Your task to perform on an android device: Open the contacts Image 0: 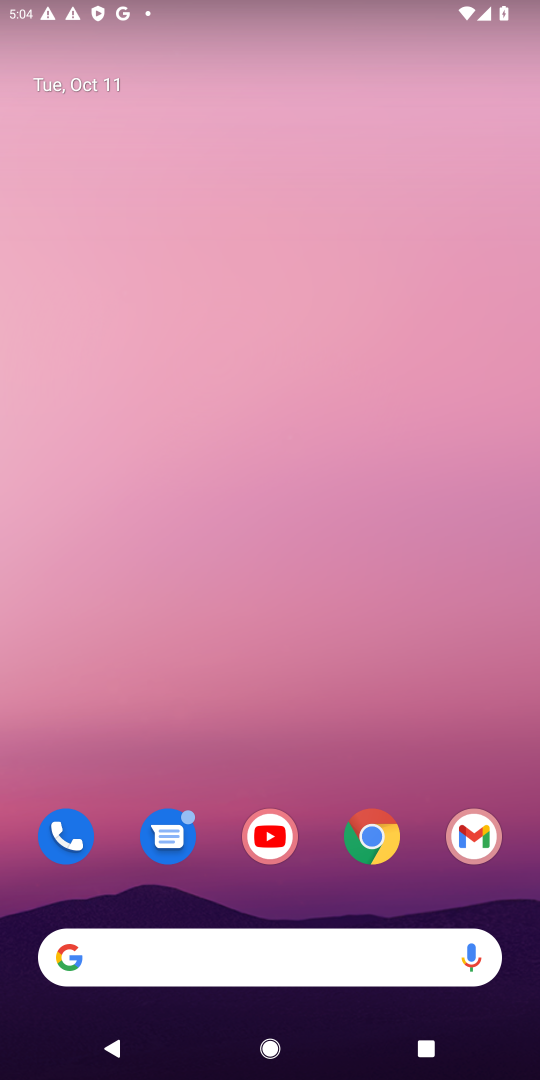
Step 0: drag from (243, 956) to (463, 295)
Your task to perform on an android device: Open the contacts Image 1: 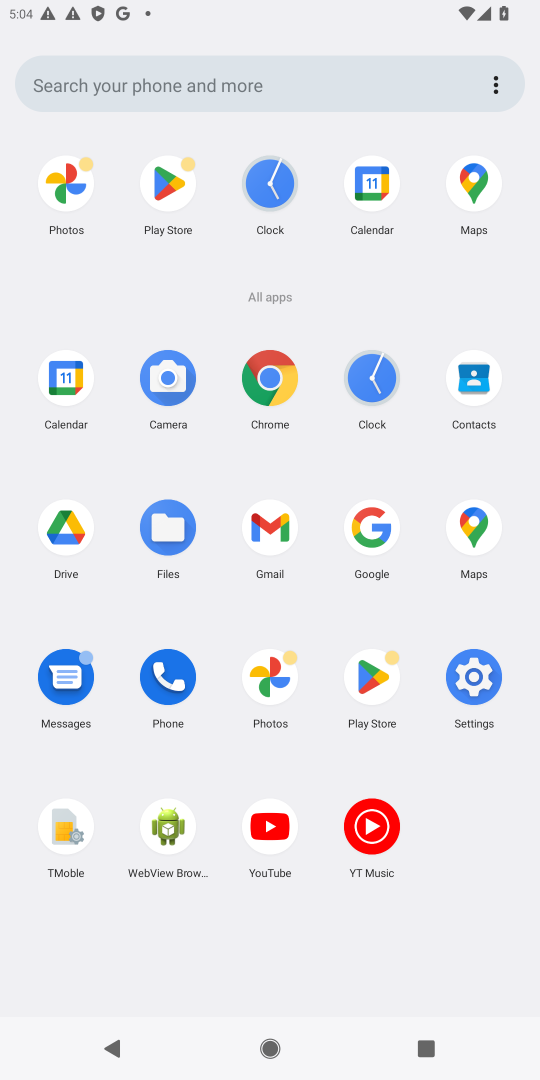
Step 1: click (481, 368)
Your task to perform on an android device: Open the contacts Image 2: 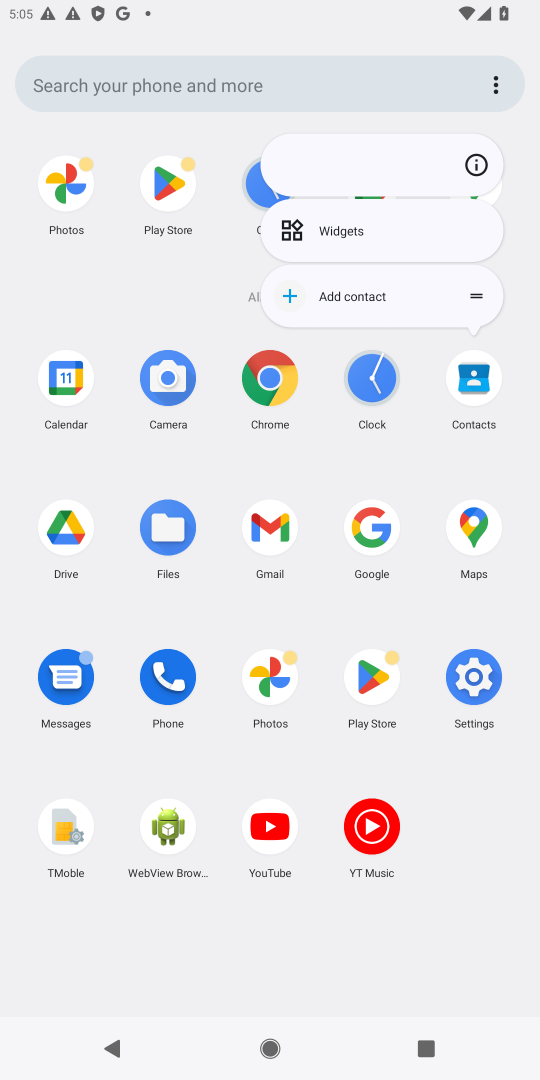
Step 2: click (476, 383)
Your task to perform on an android device: Open the contacts Image 3: 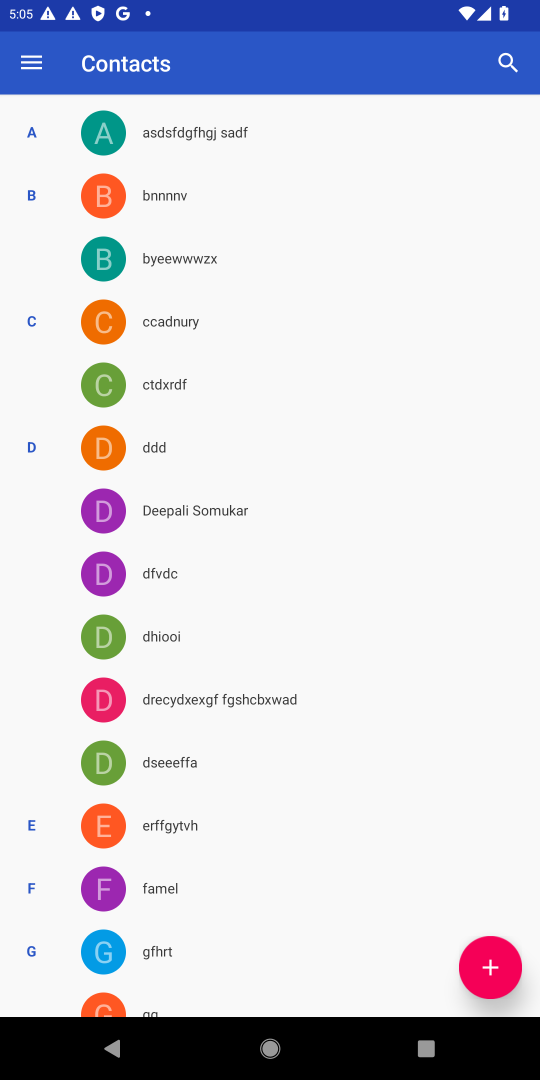
Step 3: task complete